Your task to perform on an android device: Go to battery settings Image 0: 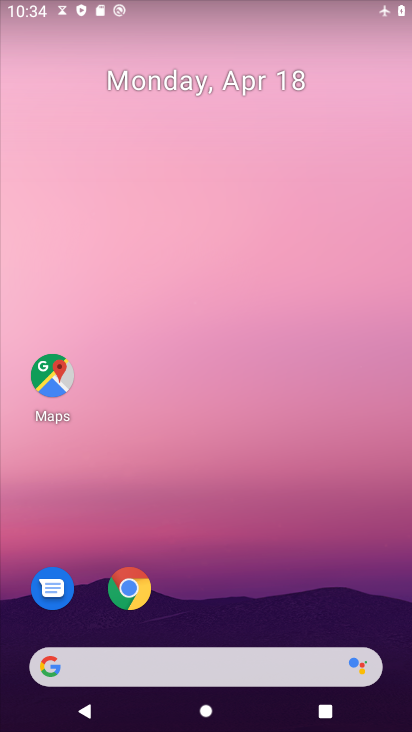
Step 0: drag from (277, 543) to (103, 23)
Your task to perform on an android device: Go to battery settings Image 1: 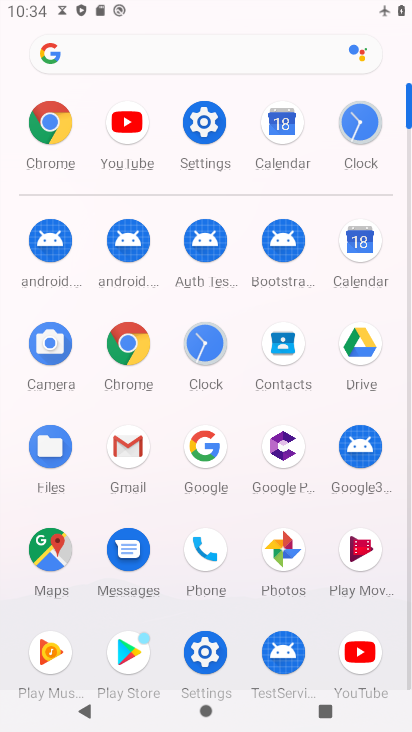
Step 1: click (200, 120)
Your task to perform on an android device: Go to battery settings Image 2: 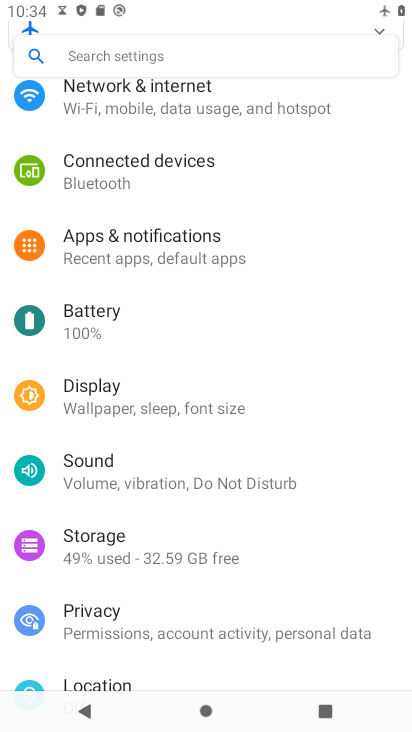
Step 2: click (116, 319)
Your task to perform on an android device: Go to battery settings Image 3: 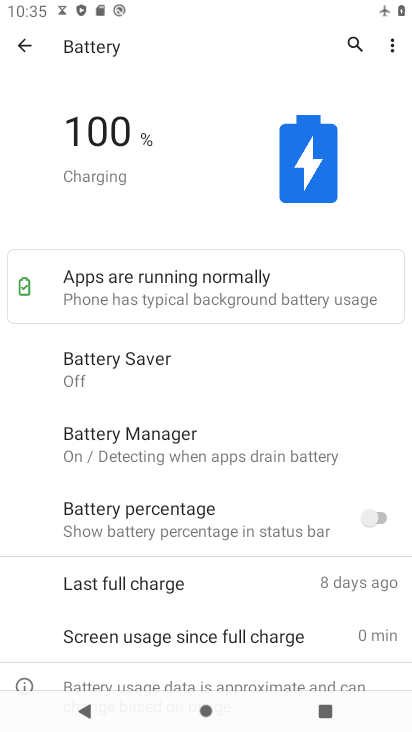
Step 3: task complete